Your task to perform on an android device: change notifications settings Image 0: 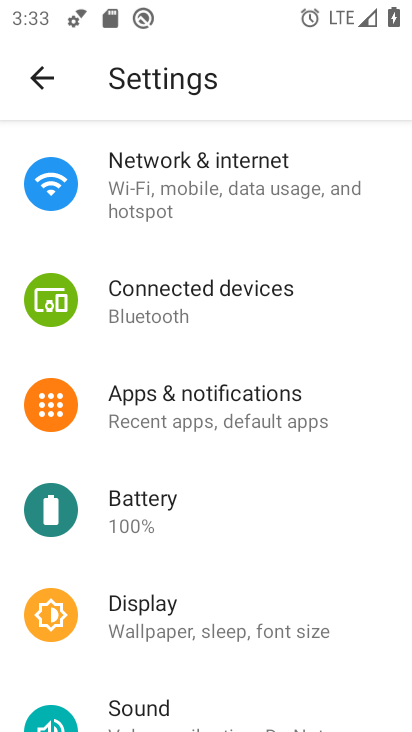
Step 0: press home button
Your task to perform on an android device: change notifications settings Image 1: 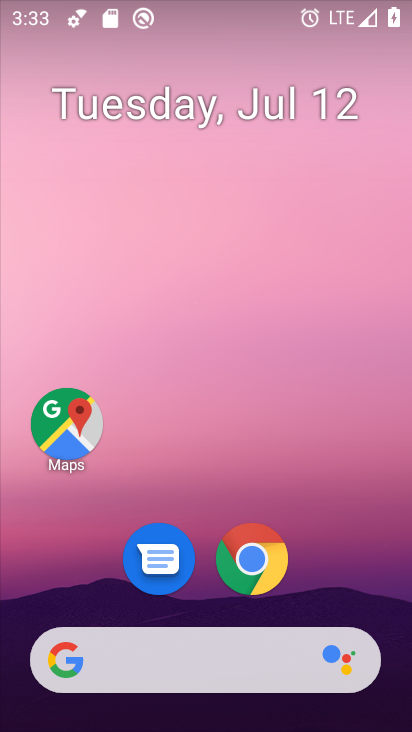
Step 1: drag from (374, 561) to (377, 167)
Your task to perform on an android device: change notifications settings Image 2: 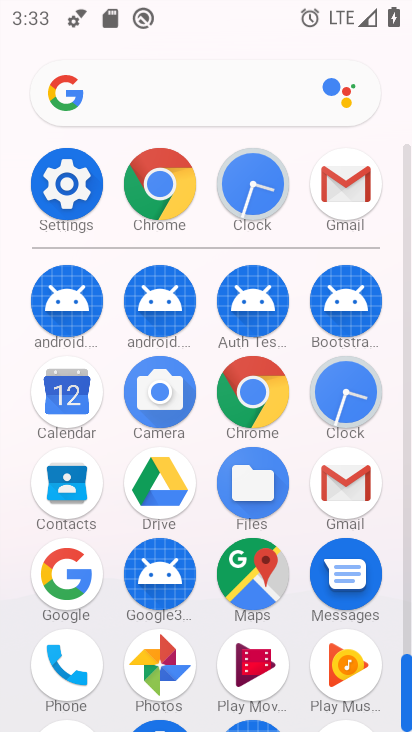
Step 2: click (75, 202)
Your task to perform on an android device: change notifications settings Image 3: 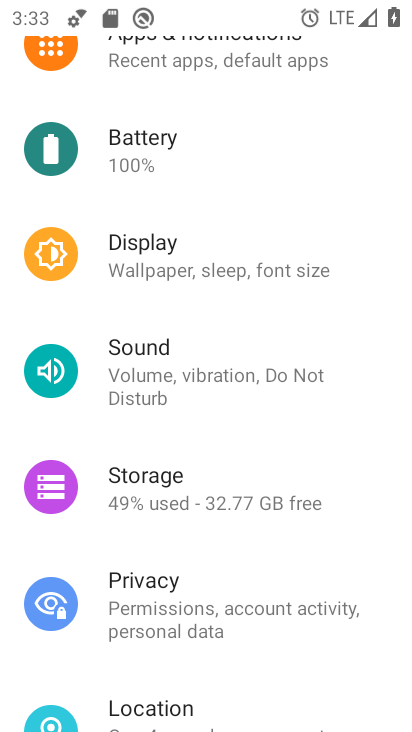
Step 3: drag from (357, 422) to (357, 485)
Your task to perform on an android device: change notifications settings Image 4: 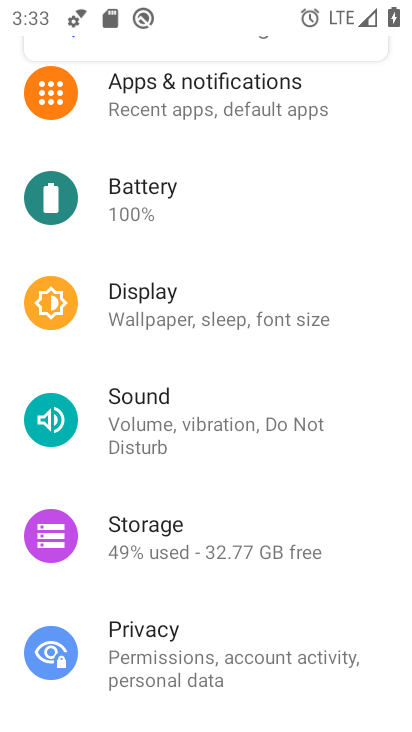
Step 4: drag from (362, 418) to (364, 469)
Your task to perform on an android device: change notifications settings Image 5: 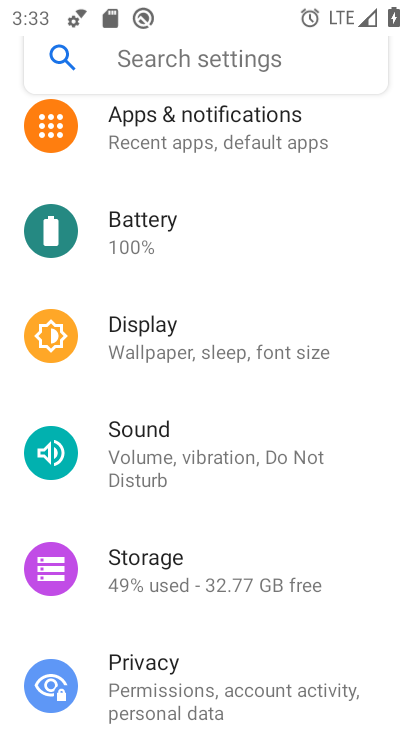
Step 5: drag from (361, 411) to (362, 461)
Your task to perform on an android device: change notifications settings Image 6: 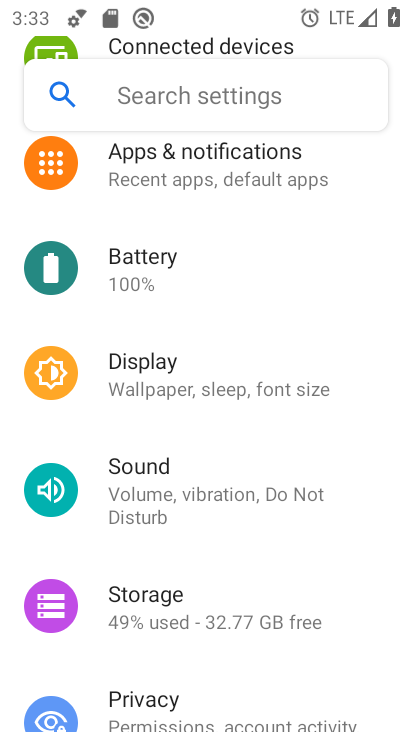
Step 6: drag from (359, 391) to (358, 457)
Your task to perform on an android device: change notifications settings Image 7: 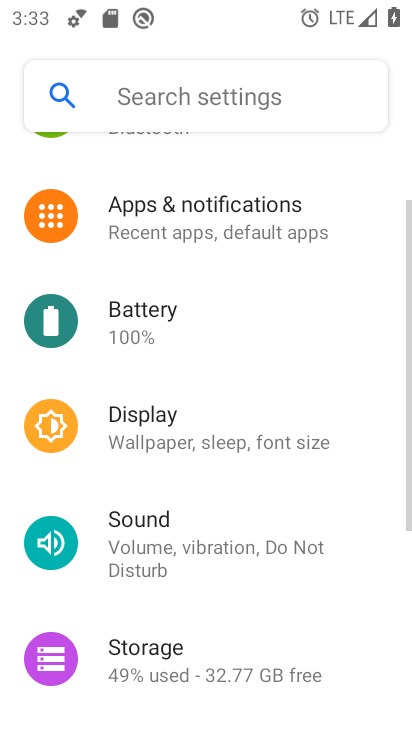
Step 7: drag from (355, 385) to (353, 451)
Your task to perform on an android device: change notifications settings Image 8: 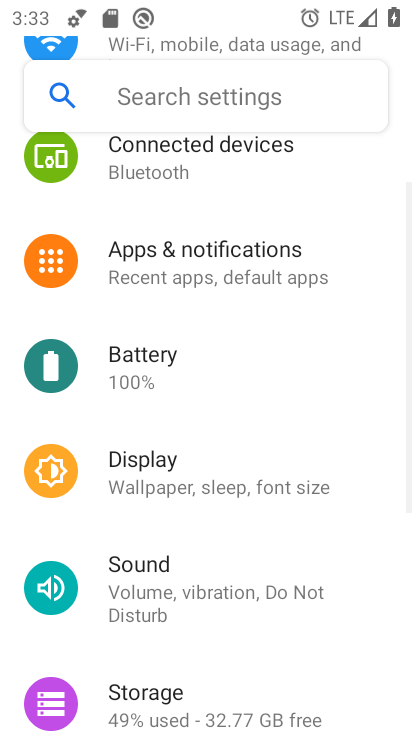
Step 8: drag from (360, 376) to (358, 440)
Your task to perform on an android device: change notifications settings Image 9: 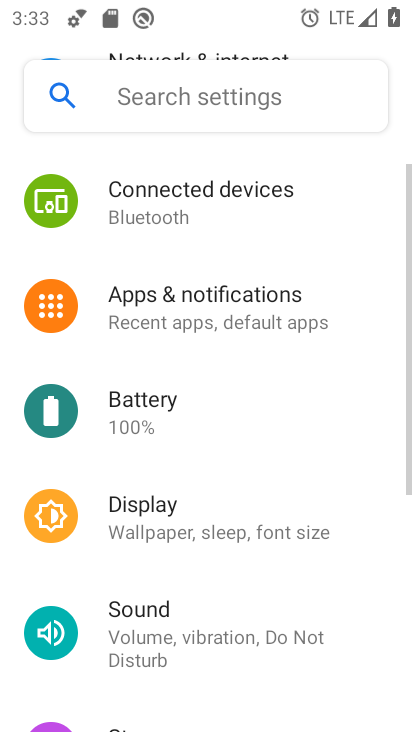
Step 9: drag from (363, 378) to (357, 446)
Your task to perform on an android device: change notifications settings Image 10: 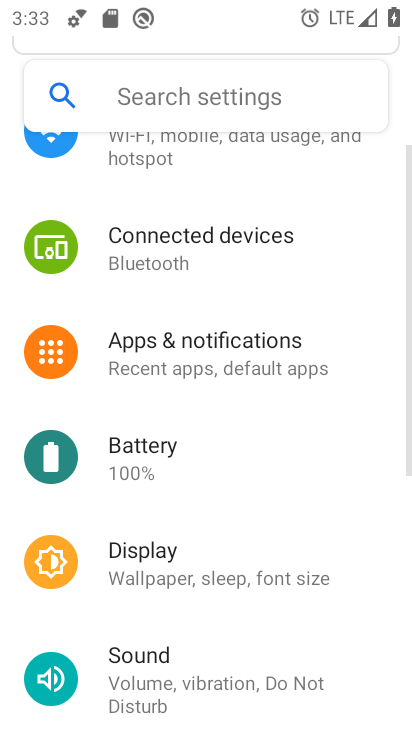
Step 10: drag from (361, 371) to (356, 481)
Your task to perform on an android device: change notifications settings Image 11: 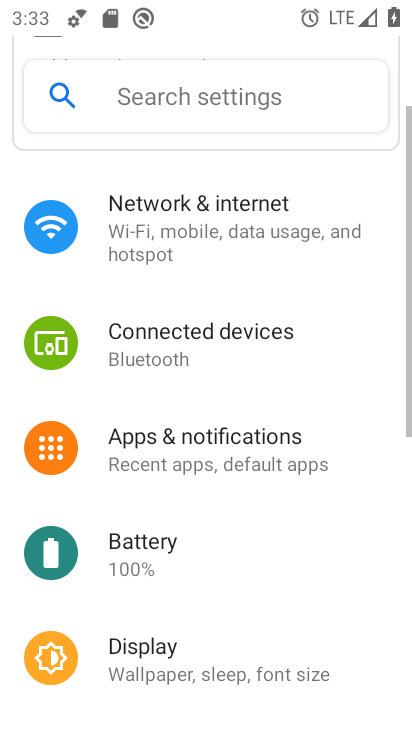
Step 11: click (335, 458)
Your task to perform on an android device: change notifications settings Image 12: 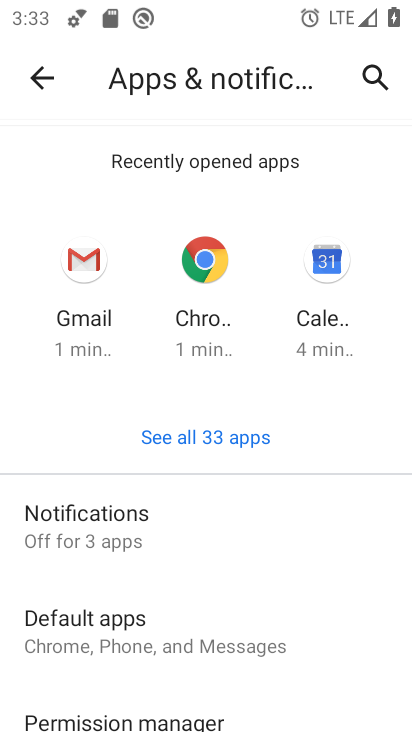
Step 12: click (228, 535)
Your task to perform on an android device: change notifications settings Image 13: 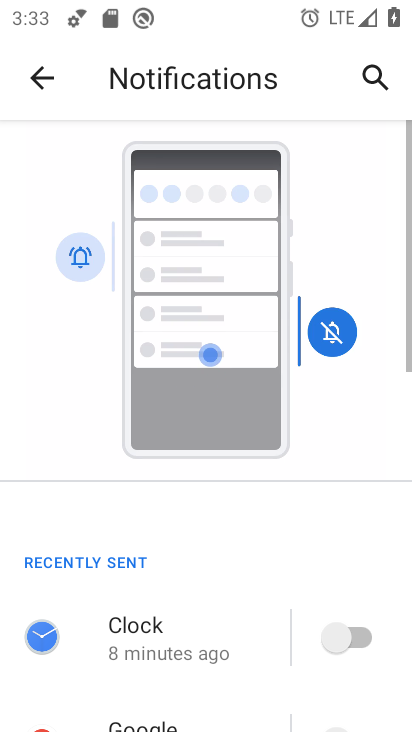
Step 13: drag from (278, 538) to (290, 376)
Your task to perform on an android device: change notifications settings Image 14: 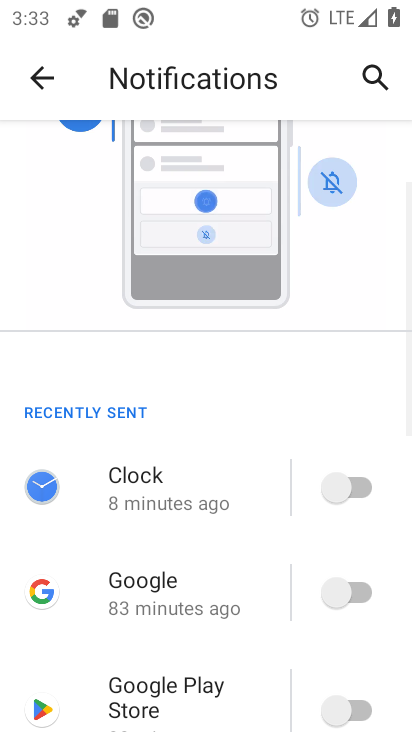
Step 14: drag from (266, 545) to (259, 380)
Your task to perform on an android device: change notifications settings Image 15: 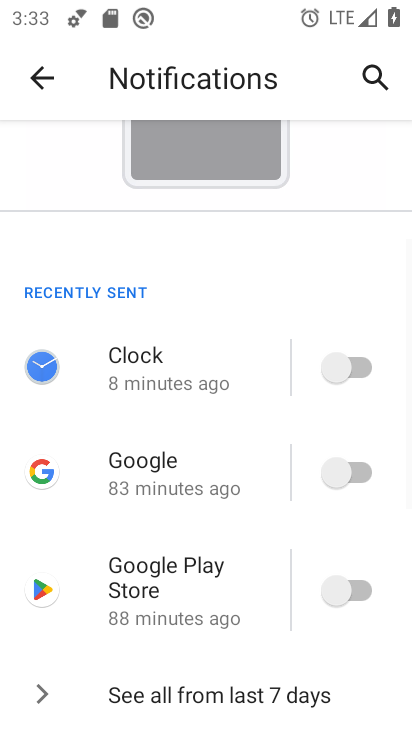
Step 15: click (351, 368)
Your task to perform on an android device: change notifications settings Image 16: 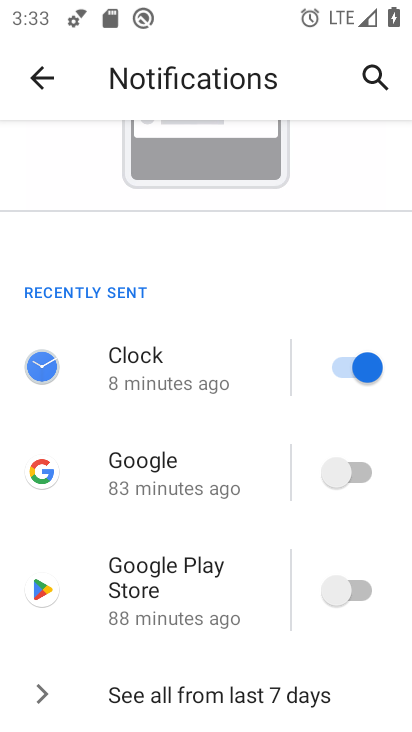
Step 16: click (343, 488)
Your task to perform on an android device: change notifications settings Image 17: 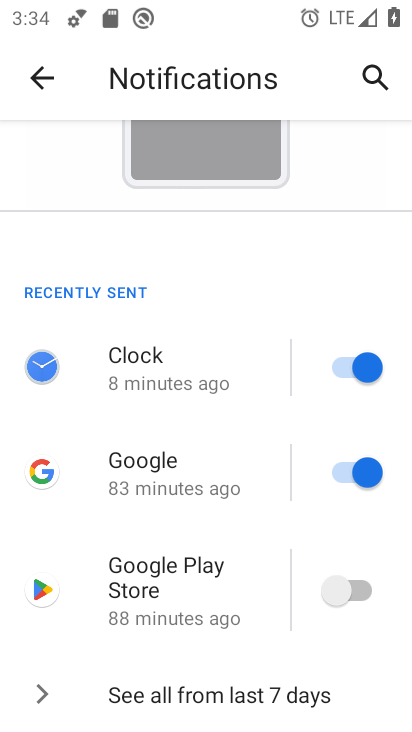
Step 17: click (324, 584)
Your task to perform on an android device: change notifications settings Image 18: 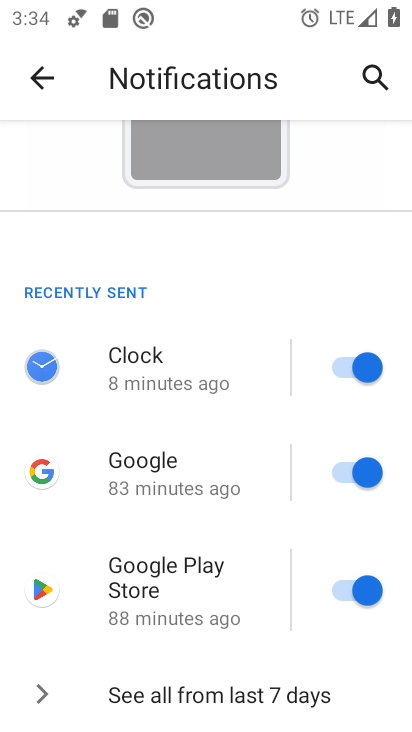
Step 18: task complete